Your task to perform on an android device: Open internet settings Image 0: 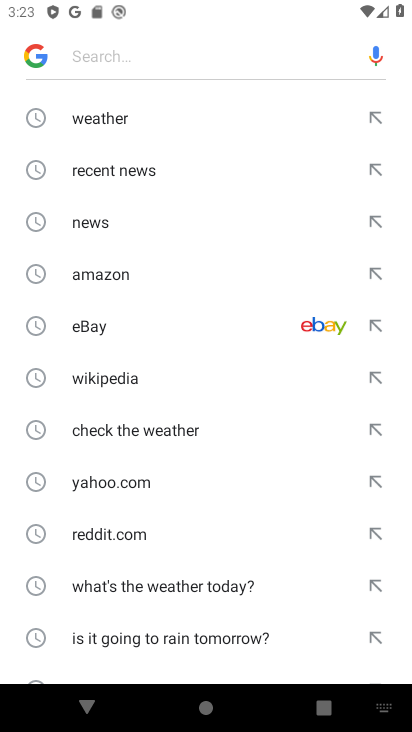
Step 0: press back button
Your task to perform on an android device: Open internet settings Image 1: 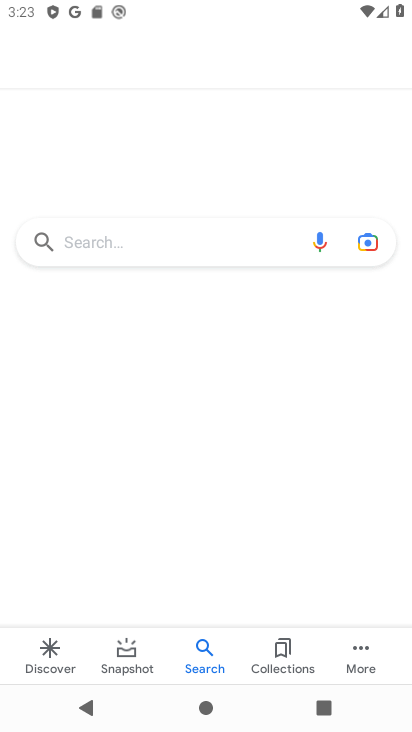
Step 1: press home button
Your task to perform on an android device: Open internet settings Image 2: 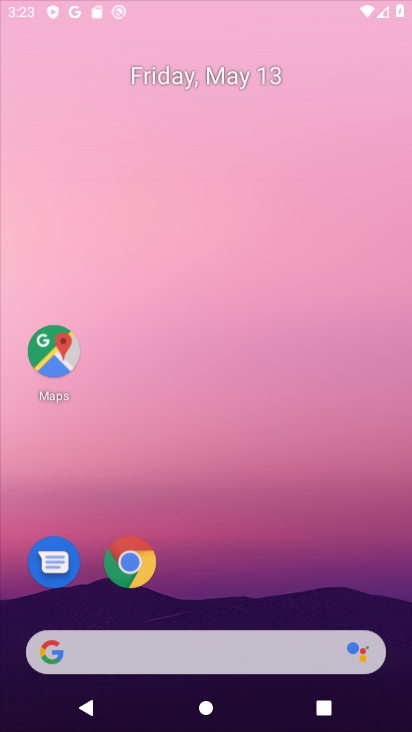
Step 2: press back button
Your task to perform on an android device: Open internet settings Image 3: 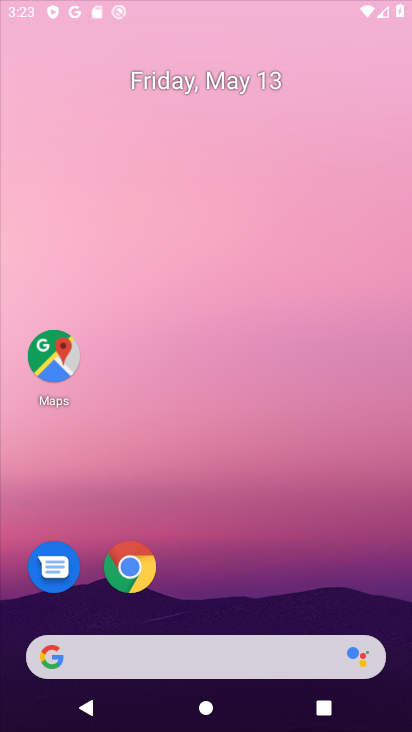
Step 3: press back button
Your task to perform on an android device: Open internet settings Image 4: 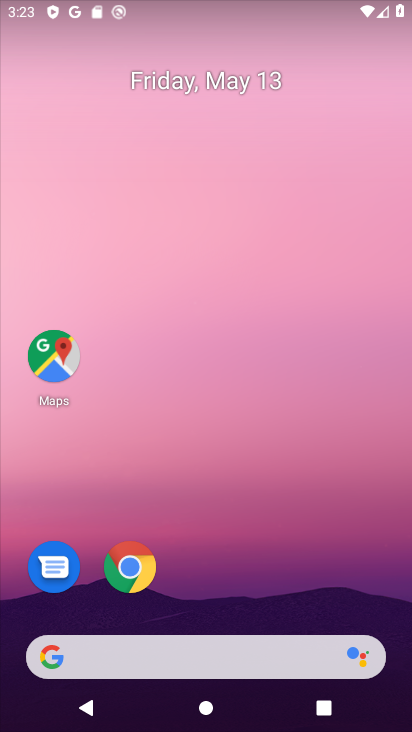
Step 4: click (202, 126)
Your task to perform on an android device: Open internet settings Image 5: 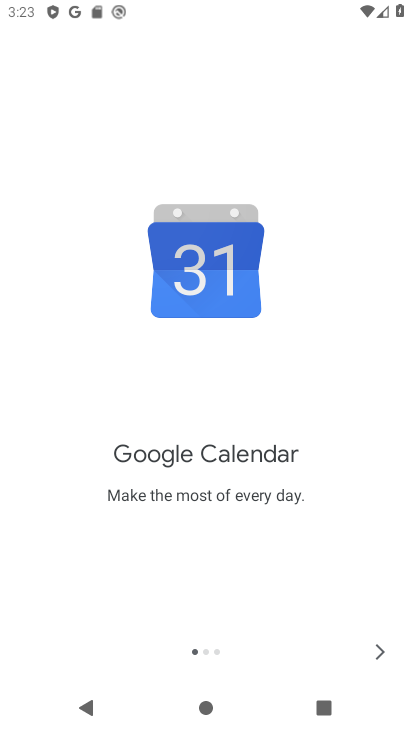
Step 5: click (375, 648)
Your task to perform on an android device: Open internet settings Image 6: 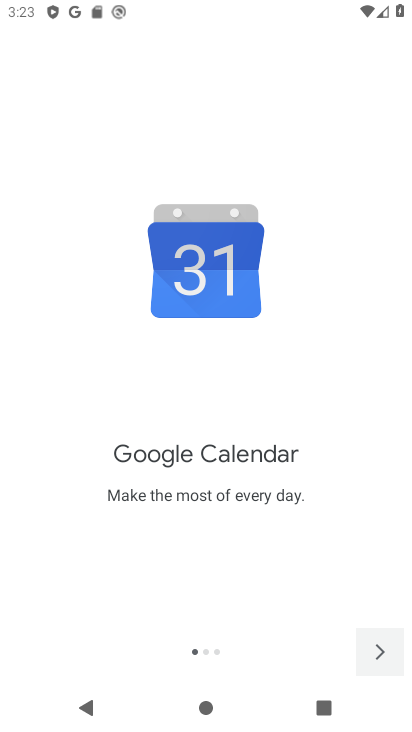
Step 6: click (376, 648)
Your task to perform on an android device: Open internet settings Image 7: 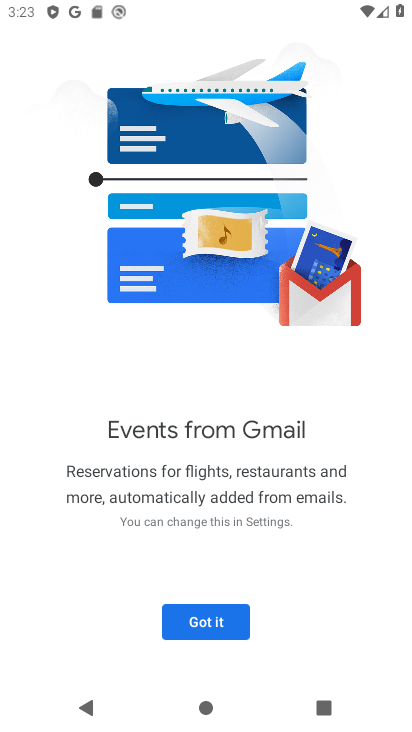
Step 7: click (218, 607)
Your task to perform on an android device: Open internet settings Image 8: 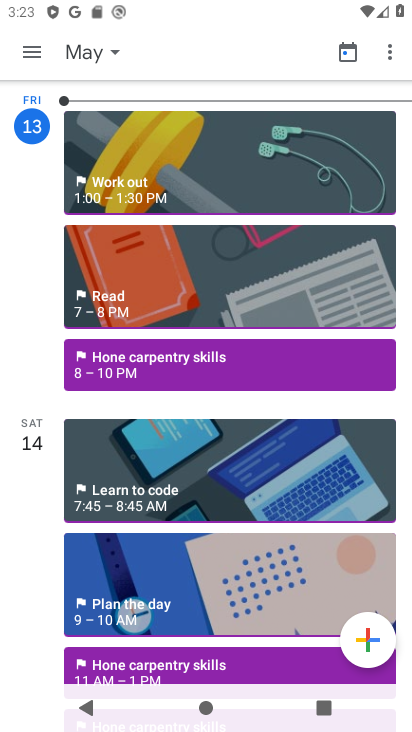
Step 8: press back button
Your task to perform on an android device: Open internet settings Image 9: 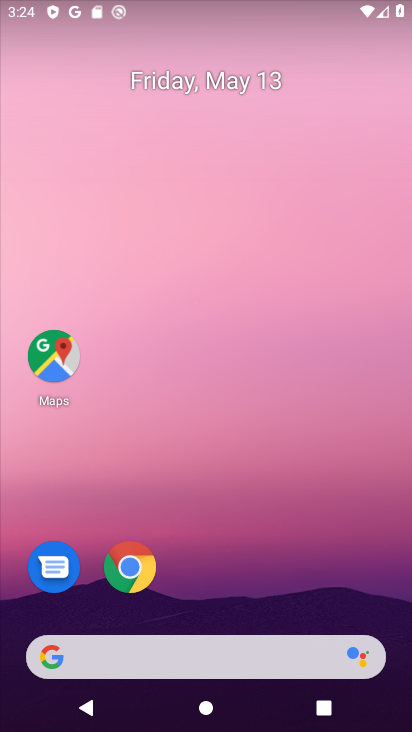
Step 9: drag from (279, 606) to (199, 54)
Your task to perform on an android device: Open internet settings Image 10: 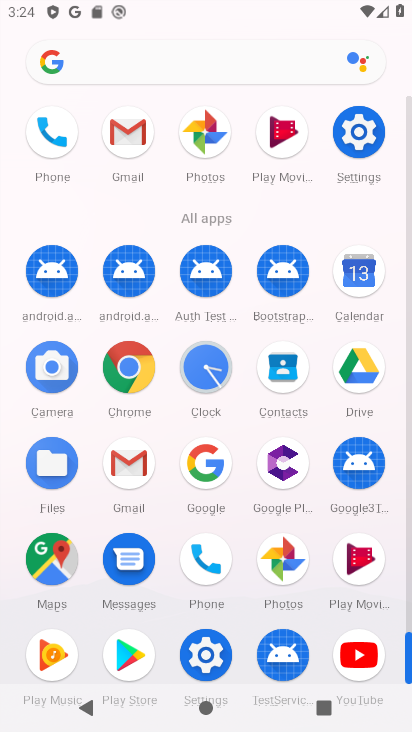
Step 10: click (368, 135)
Your task to perform on an android device: Open internet settings Image 11: 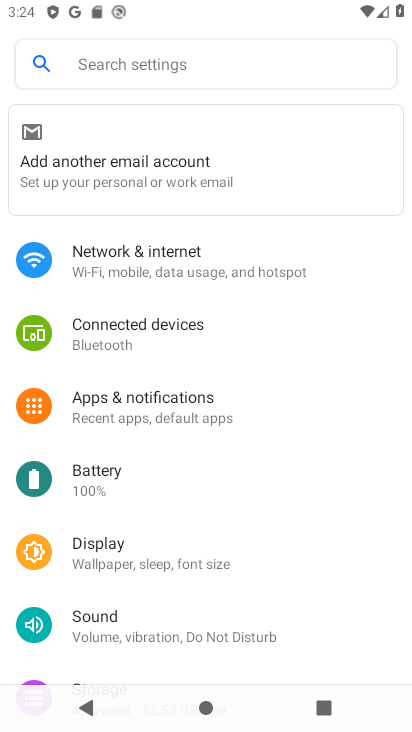
Step 11: click (128, 270)
Your task to perform on an android device: Open internet settings Image 12: 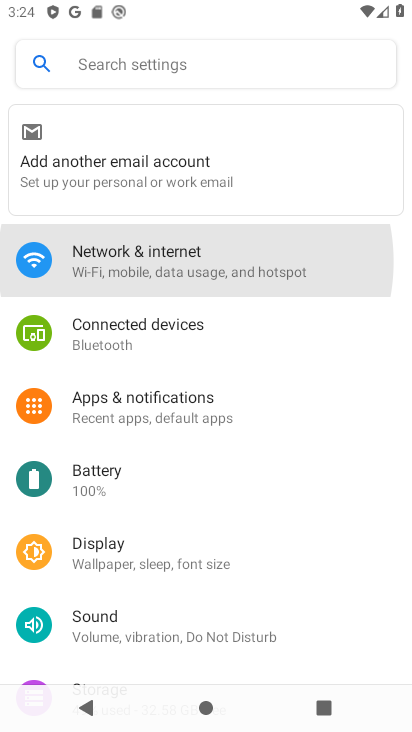
Step 12: click (129, 268)
Your task to perform on an android device: Open internet settings Image 13: 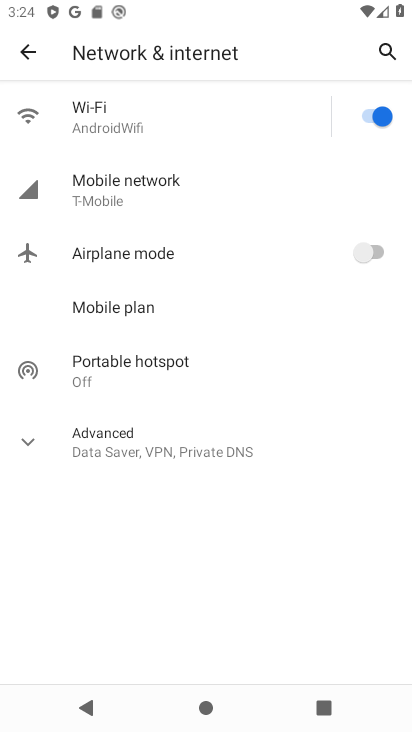
Step 13: task complete